Your task to perform on an android device: Go to notification settings Image 0: 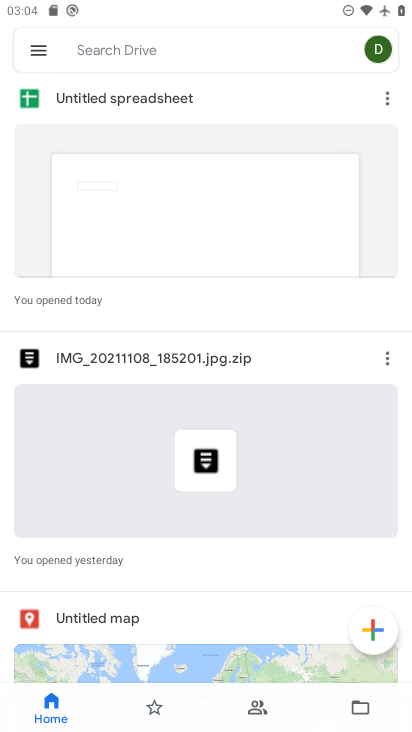
Step 0: press home button
Your task to perform on an android device: Go to notification settings Image 1: 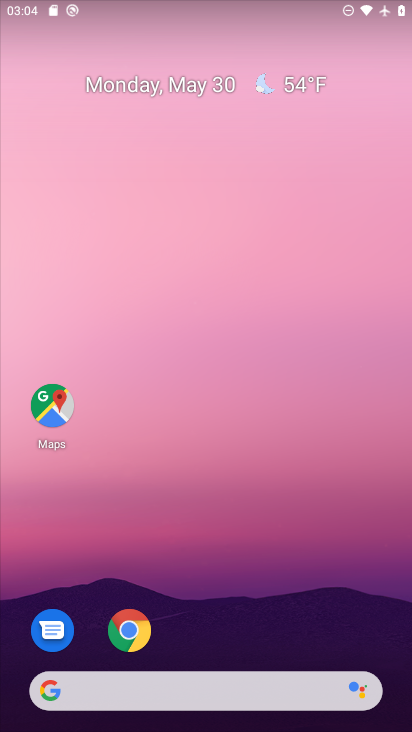
Step 1: drag from (202, 696) to (302, 328)
Your task to perform on an android device: Go to notification settings Image 2: 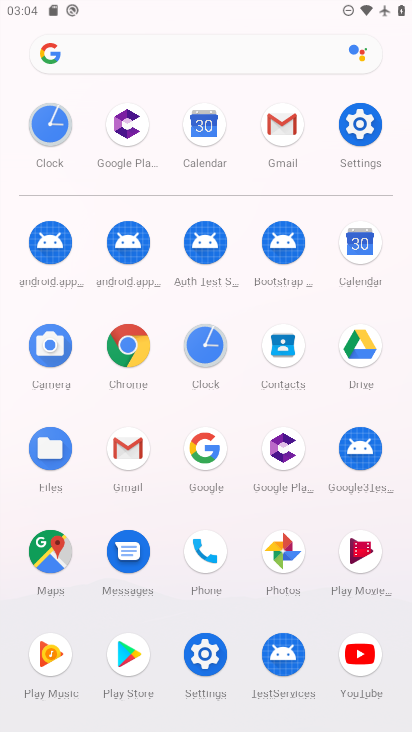
Step 2: click (360, 126)
Your task to perform on an android device: Go to notification settings Image 3: 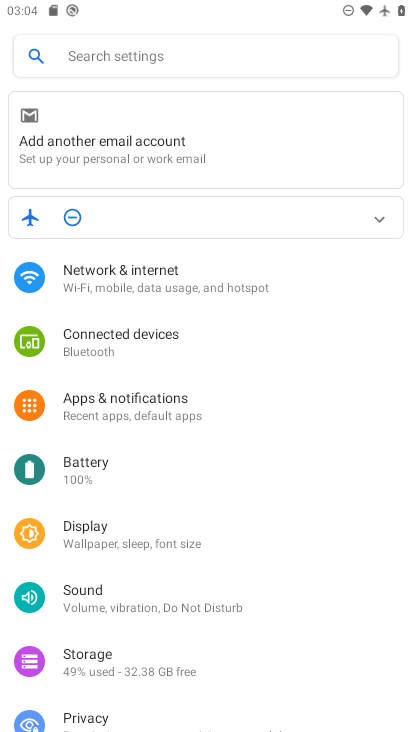
Step 3: click (153, 410)
Your task to perform on an android device: Go to notification settings Image 4: 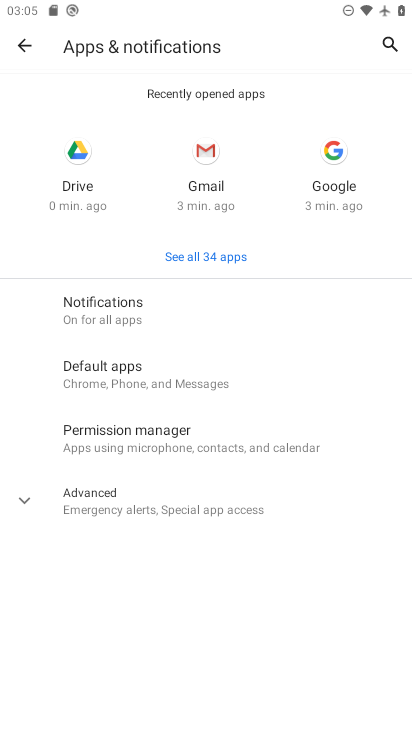
Step 4: click (126, 315)
Your task to perform on an android device: Go to notification settings Image 5: 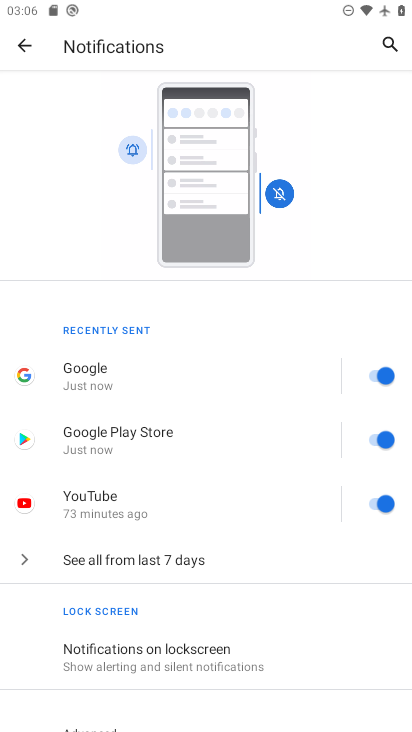
Step 5: task complete